Your task to perform on an android device: open device folders in google photos Image 0: 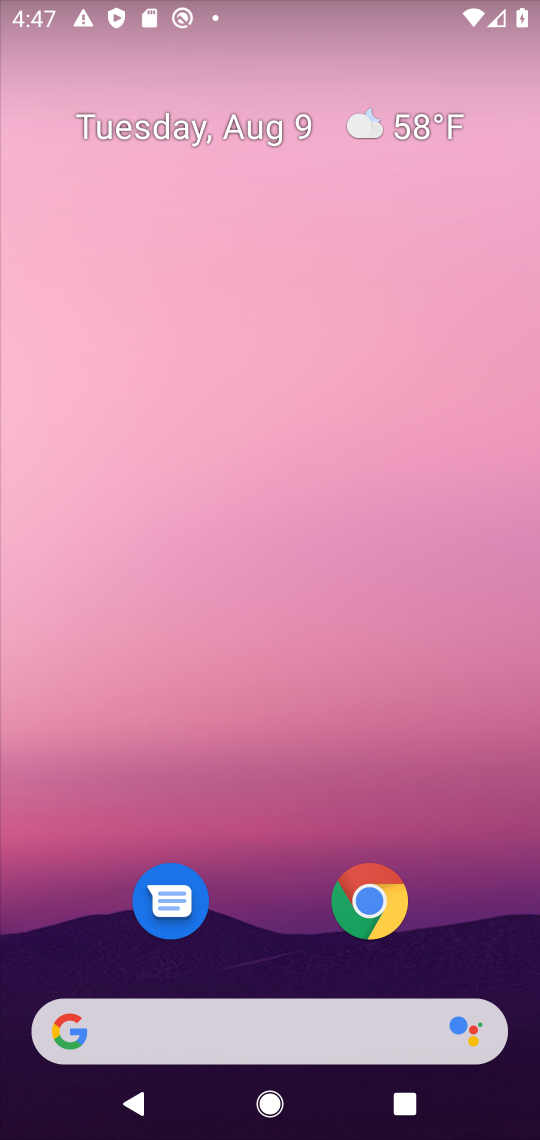
Step 0: press home button
Your task to perform on an android device: open device folders in google photos Image 1: 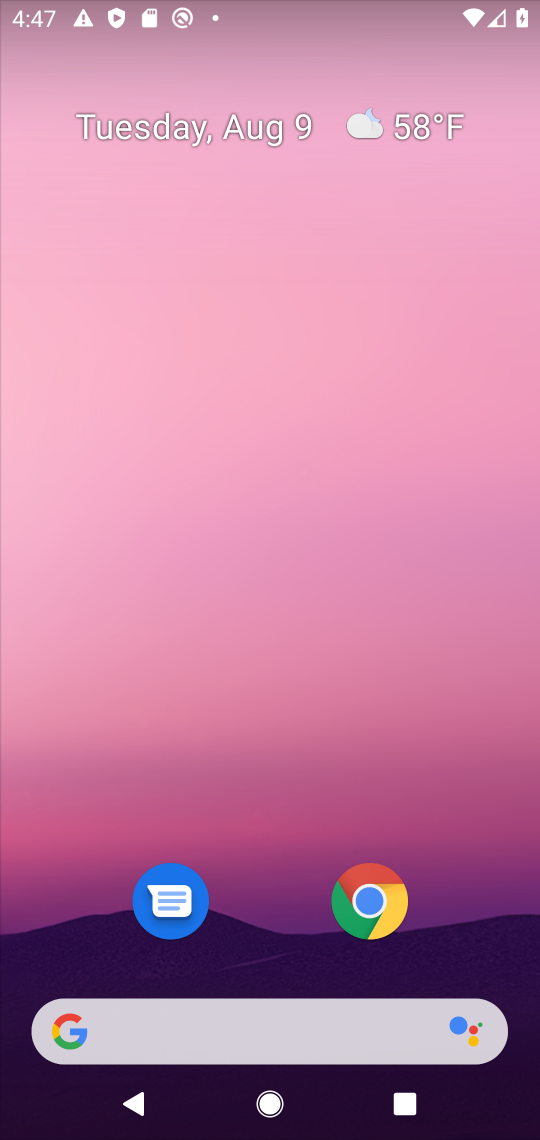
Step 1: drag from (294, 908) to (179, 156)
Your task to perform on an android device: open device folders in google photos Image 2: 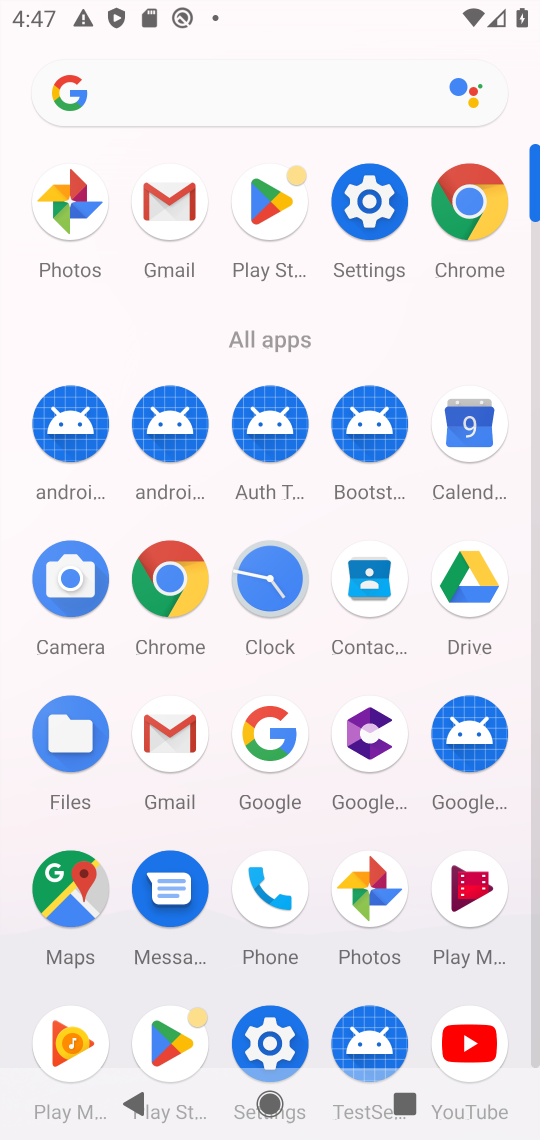
Step 2: click (71, 235)
Your task to perform on an android device: open device folders in google photos Image 3: 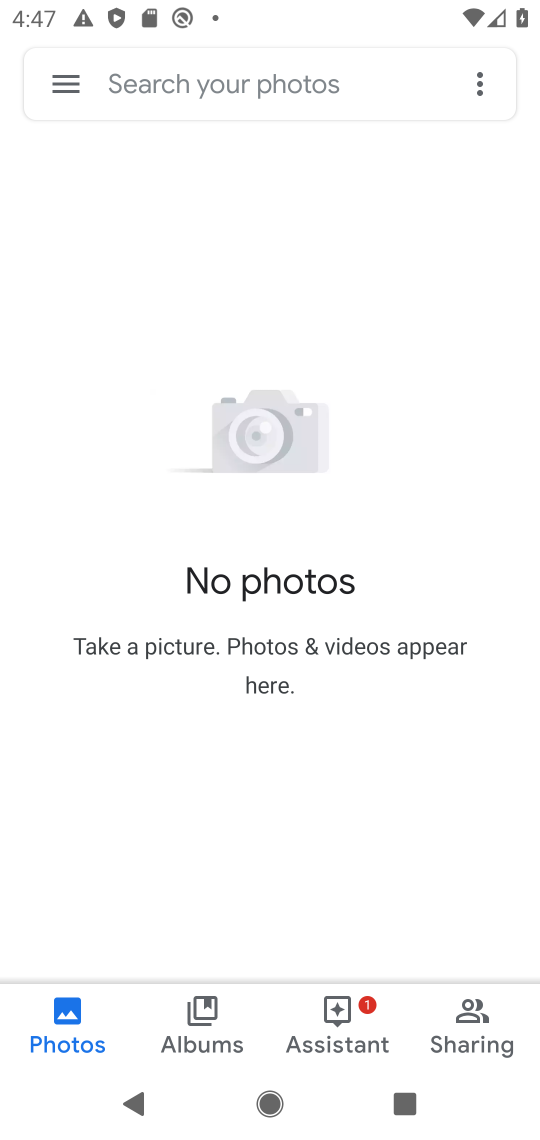
Step 3: click (58, 75)
Your task to perform on an android device: open device folders in google photos Image 4: 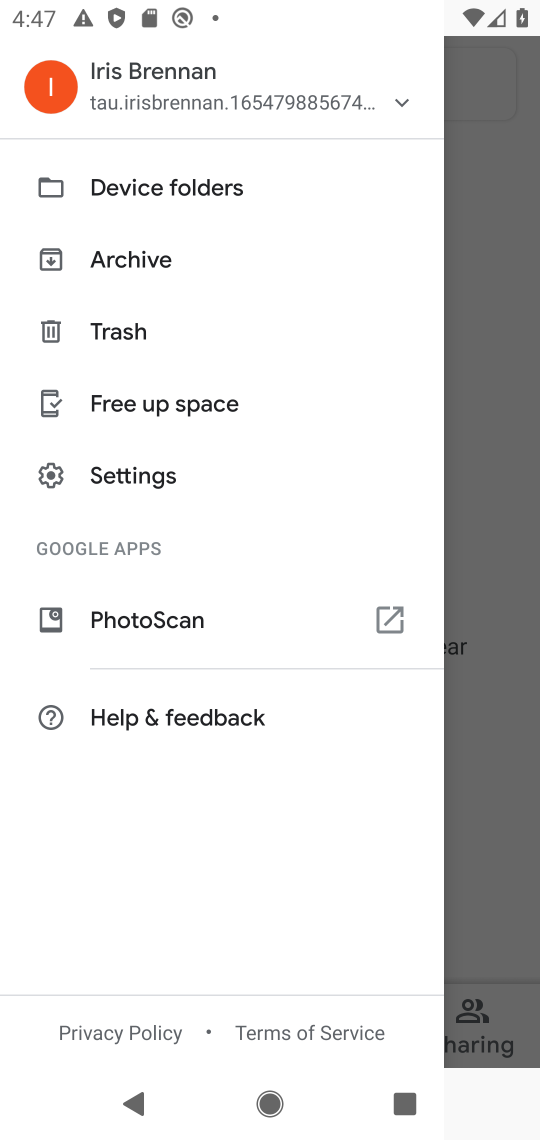
Step 4: click (85, 178)
Your task to perform on an android device: open device folders in google photos Image 5: 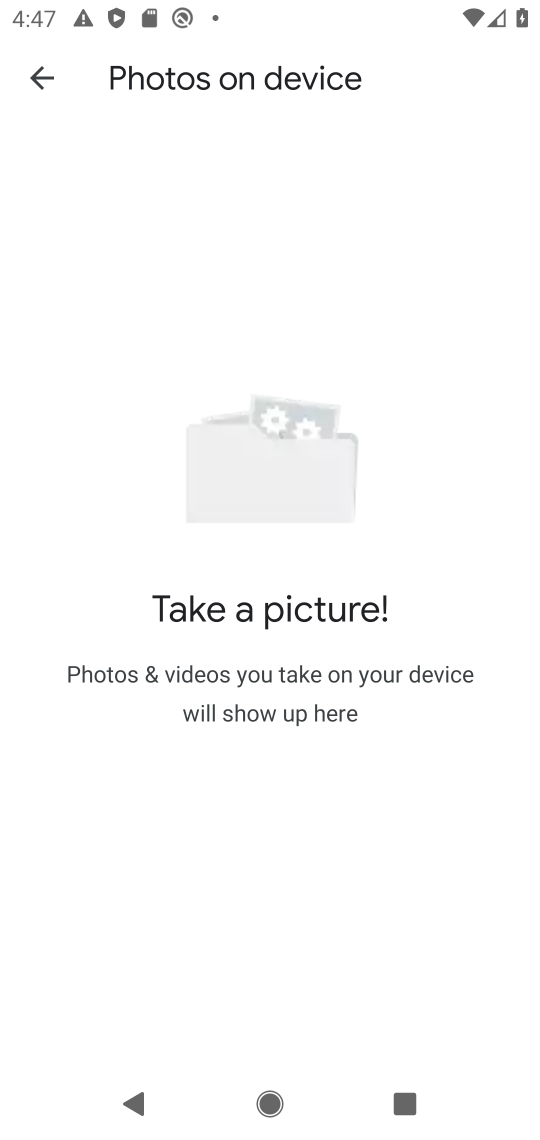
Step 5: task complete